Your task to perform on an android device: Open Wikipedia Image 0: 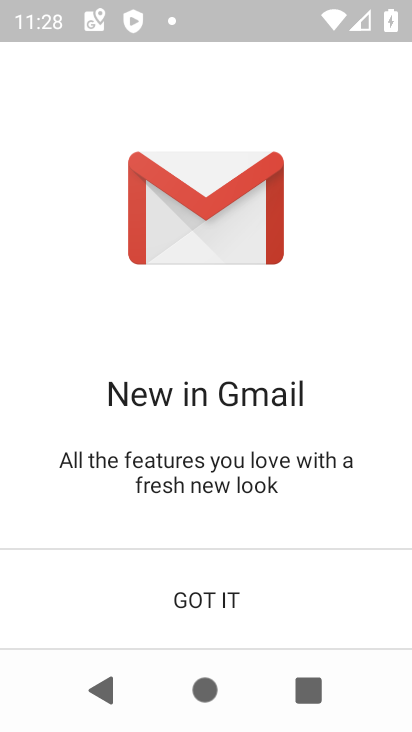
Step 0: press home button
Your task to perform on an android device: Open Wikipedia Image 1: 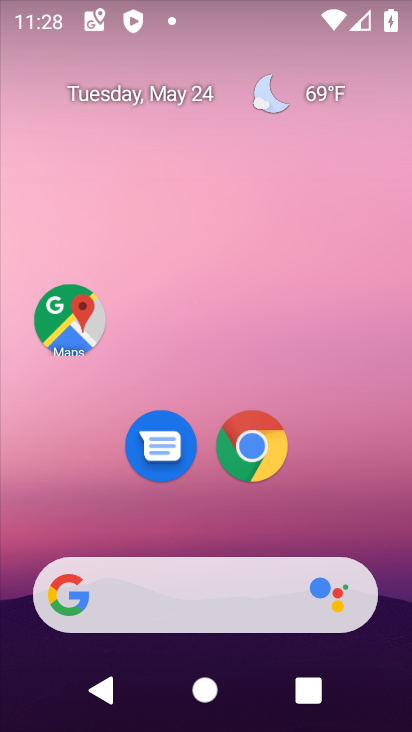
Step 1: drag from (216, 547) to (289, 113)
Your task to perform on an android device: Open Wikipedia Image 2: 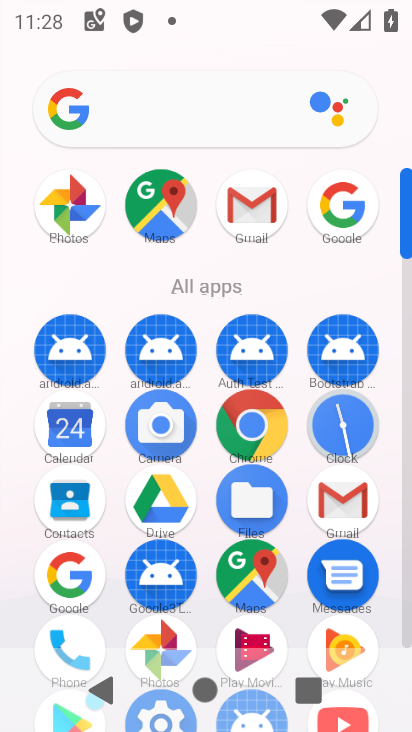
Step 2: click (255, 420)
Your task to perform on an android device: Open Wikipedia Image 3: 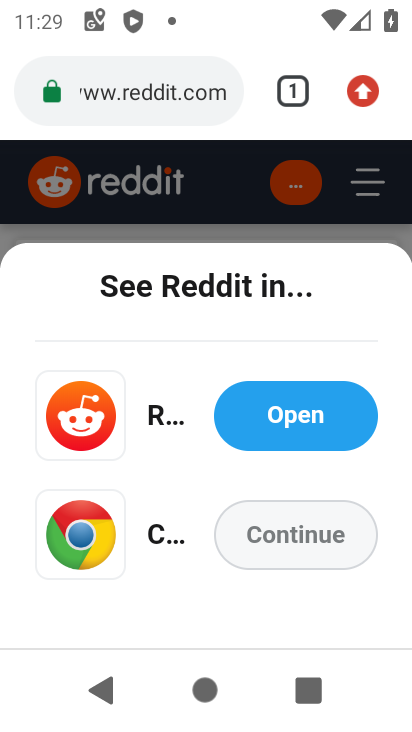
Step 3: click (295, 100)
Your task to perform on an android device: Open Wikipedia Image 4: 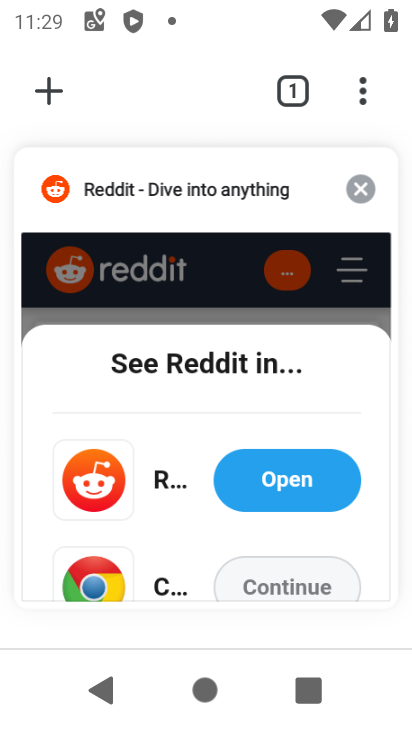
Step 4: click (353, 188)
Your task to perform on an android device: Open Wikipedia Image 5: 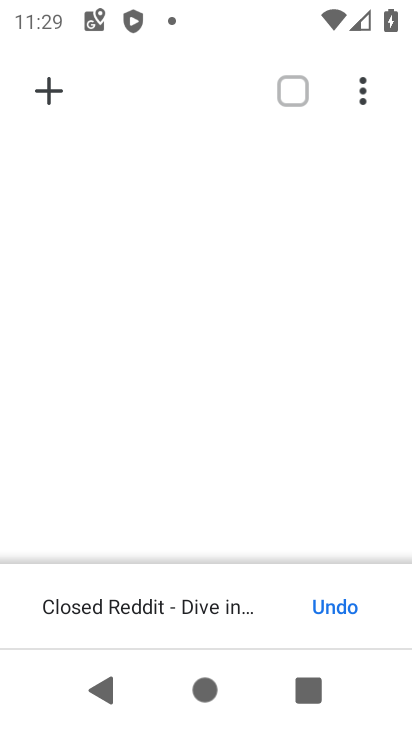
Step 5: click (38, 93)
Your task to perform on an android device: Open Wikipedia Image 6: 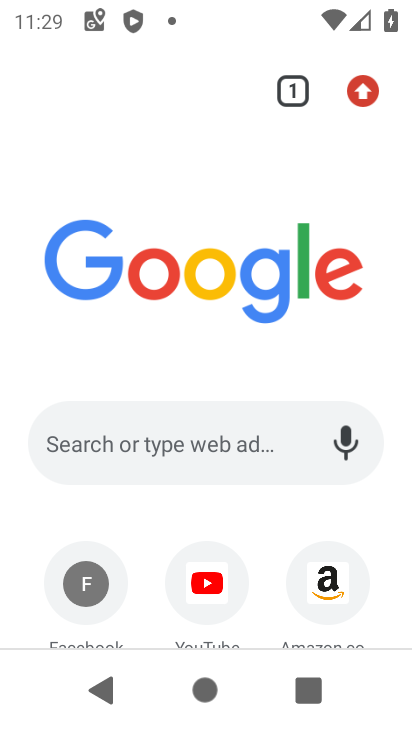
Step 6: drag from (147, 534) to (131, 185)
Your task to perform on an android device: Open Wikipedia Image 7: 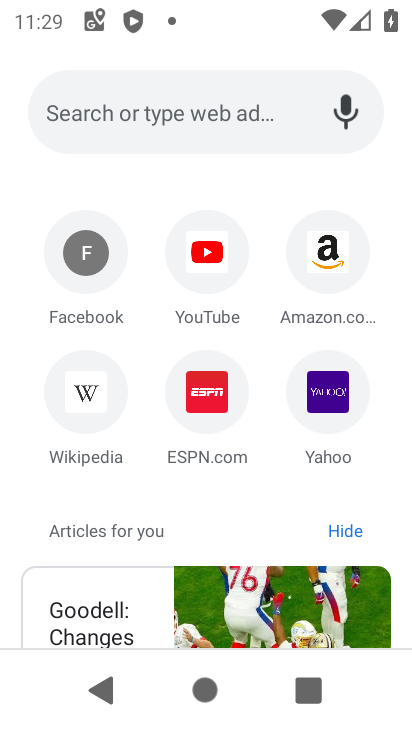
Step 7: click (75, 403)
Your task to perform on an android device: Open Wikipedia Image 8: 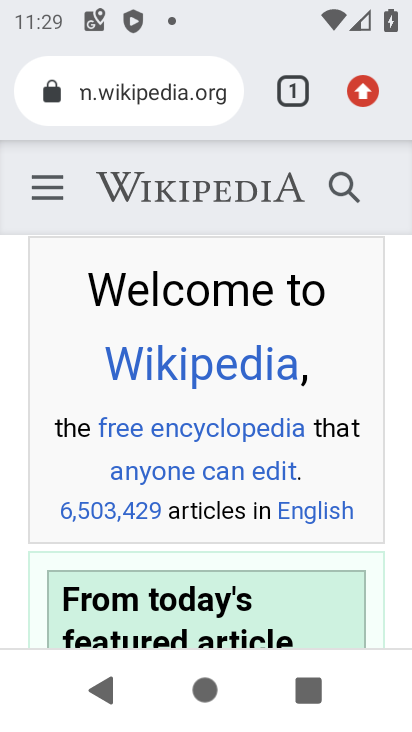
Step 8: task complete